Your task to perform on an android device: check battery use Image 0: 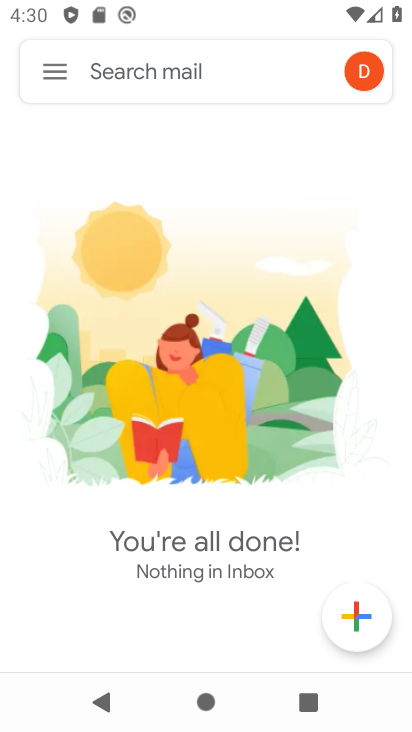
Step 0: press home button
Your task to perform on an android device: check battery use Image 1: 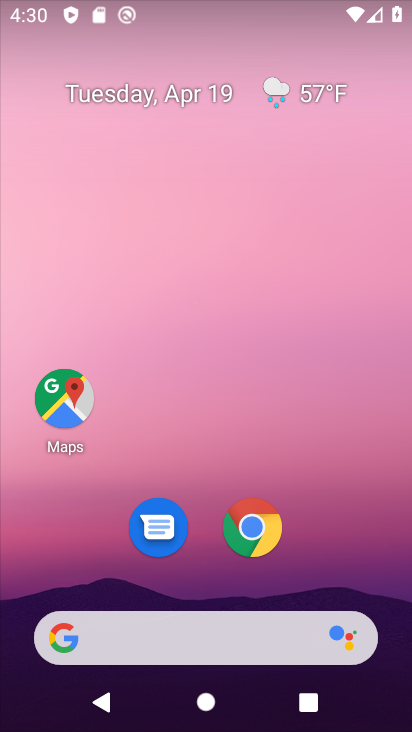
Step 1: drag from (355, 553) to (315, 284)
Your task to perform on an android device: check battery use Image 2: 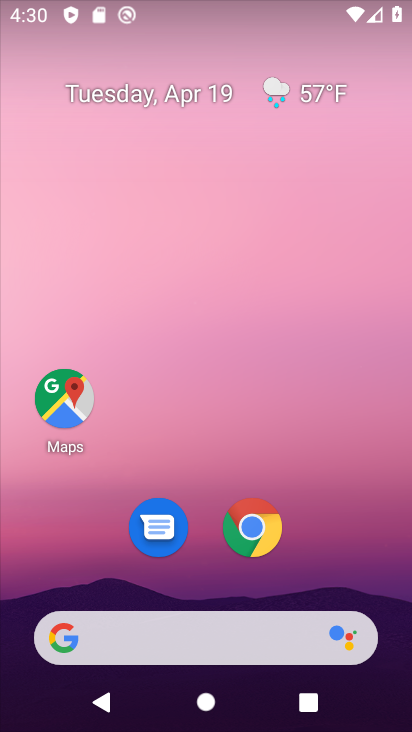
Step 2: drag from (373, 582) to (334, 145)
Your task to perform on an android device: check battery use Image 3: 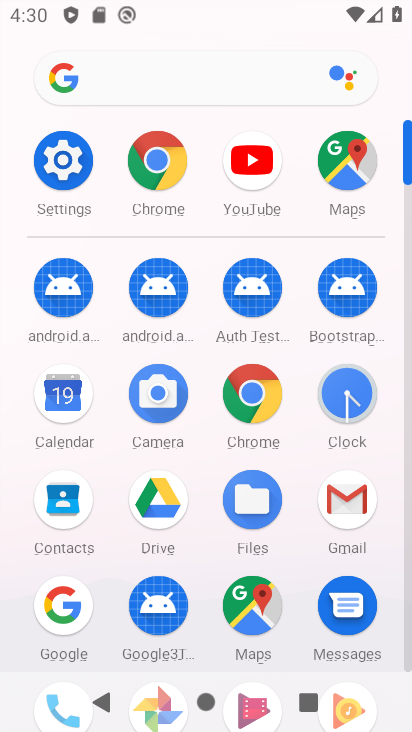
Step 3: click (406, 646)
Your task to perform on an android device: check battery use Image 4: 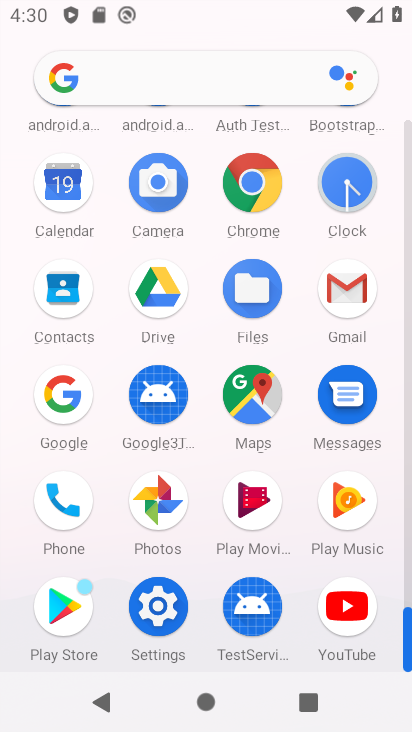
Step 4: click (158, 601)
Your task to perform on an android device: check battery use Image 5: 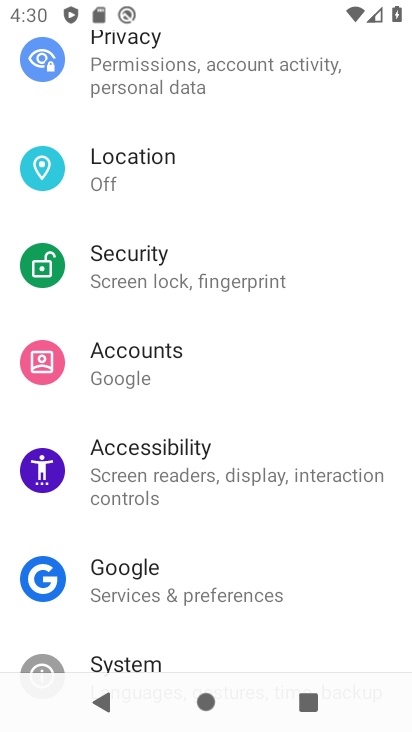
Step 5: drag from (365, 92) to (323, 470)
Your task to perform on an android device: check battery use Image 6: 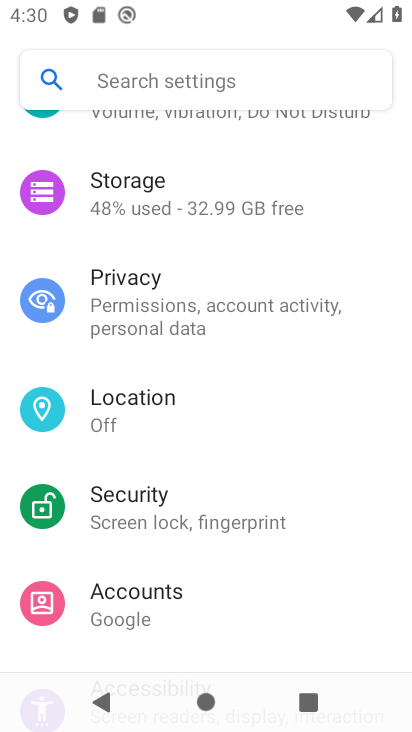
Step 6: drag from (356, 182) to (342, 479)
Your task to perform on an android device: check battery use Image 7: 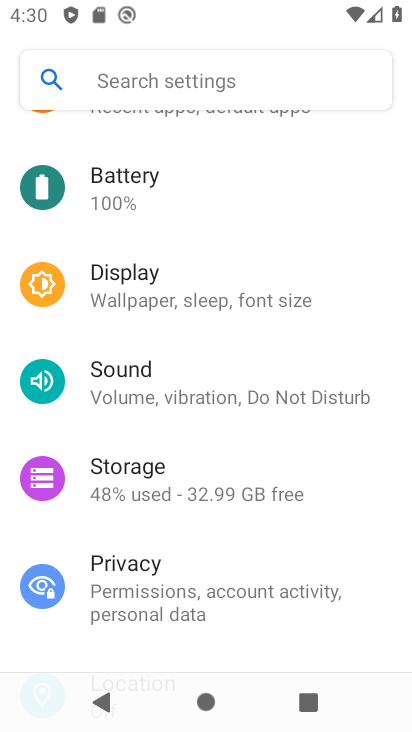
Step 7: click (82, 178)
Your task to perform on an android device: check battery use Image 8: 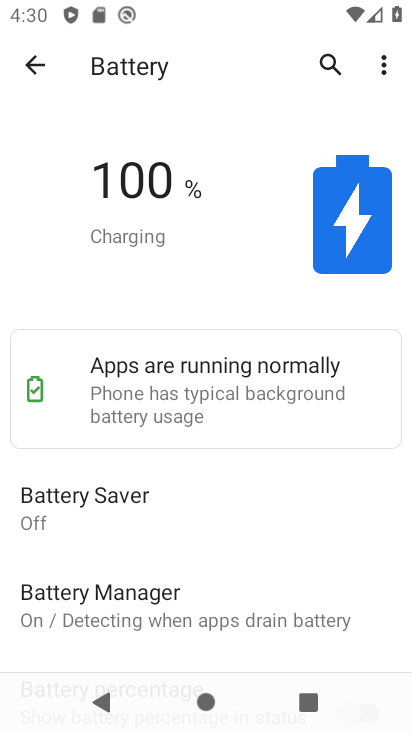
Step 8: click (384, 68)
Your task to perform on an android device: check battery use Image 9: 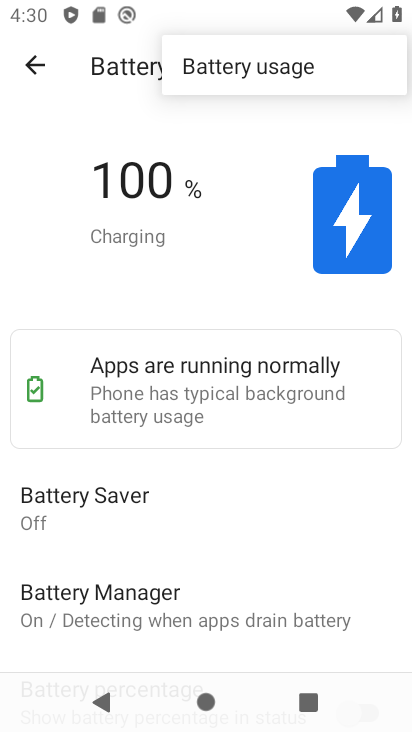
Step 9: click (239, 63)
Your task to perform on an android device: check battery use Image 10: 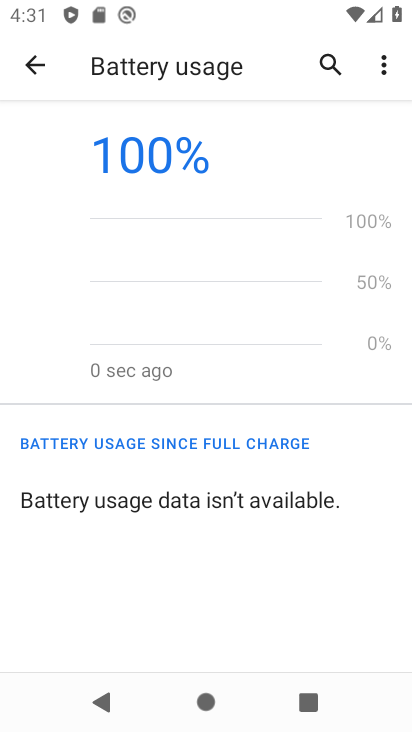
Step 10: task complete